Your task to perform on an android device: Find coffee shops on Maps Image 0: 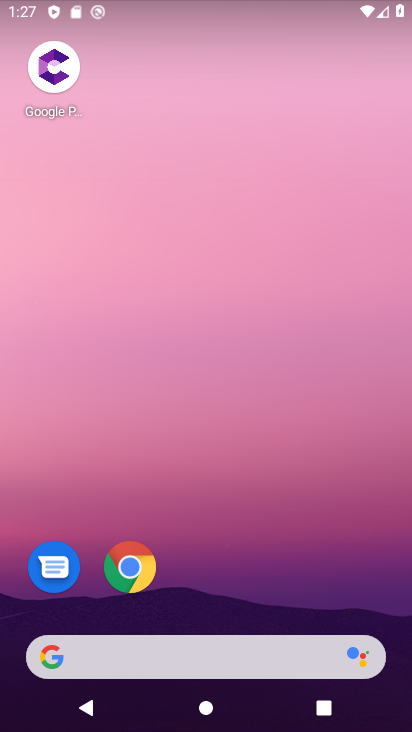
Step 0: drag from (217, 600) to (115, 53)
Your task to perform on an android device: Find coffee shops on Maps Image 1: 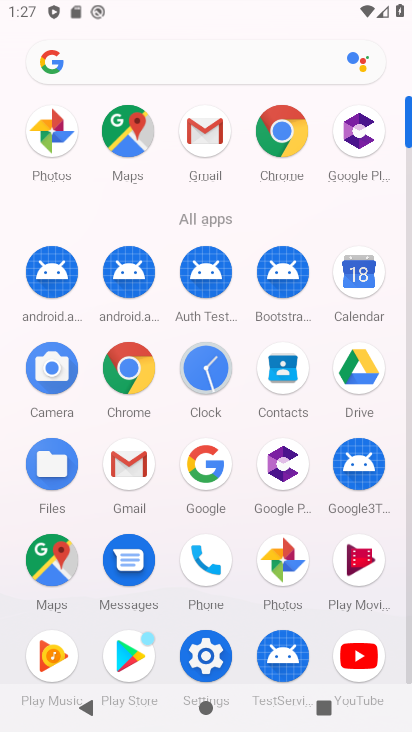
Step 1: click (37, 560)
Your task to perform on an android device: Find coffee shops on Maps Image 2: 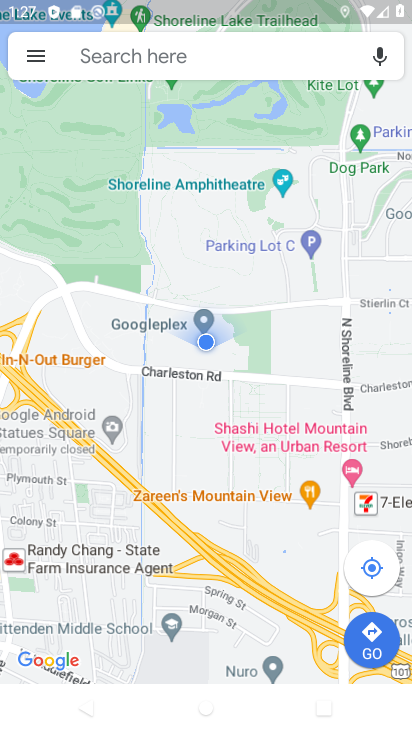
Step 2: click (192, 56)
Your task to perform on an android device: Find coffee shops on Maps Image 3: 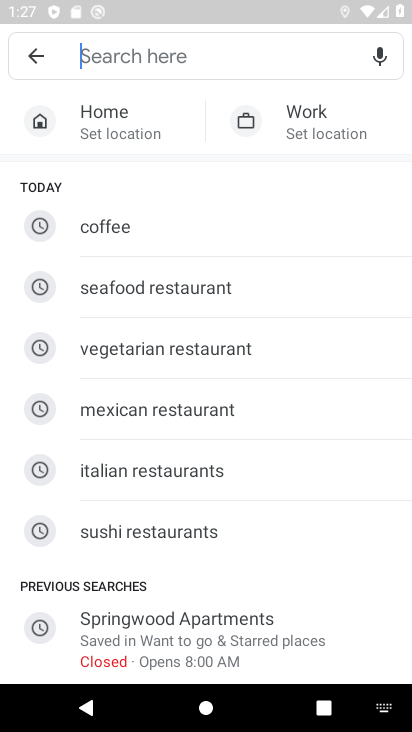
Step 3: type "coffee shops"
Your task to perform on an android device: Find coffee shops on Maps Image 4: 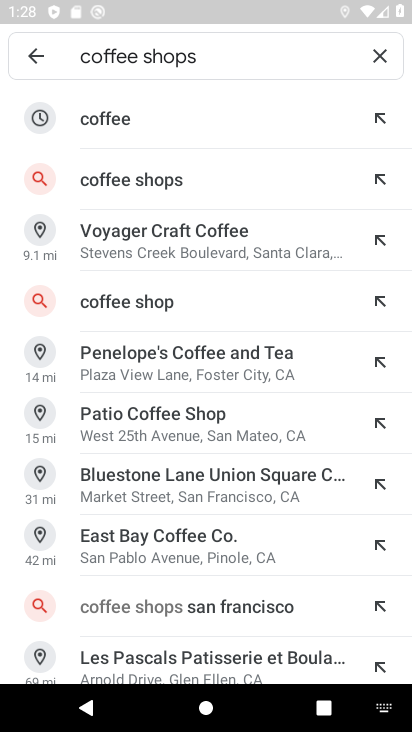
Step 4: click (204, 180)
Your task to perform on an android device: Find coffee shops on Maps Image 5: 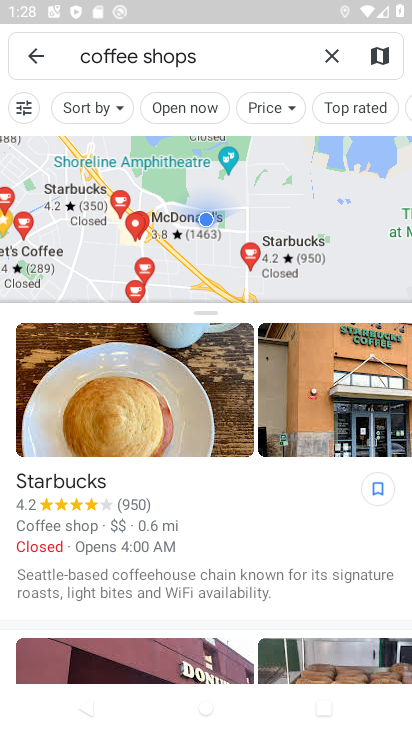
Step 5: task complete